Your task to perform on an android device: Go to Yahoo.com Image 0: 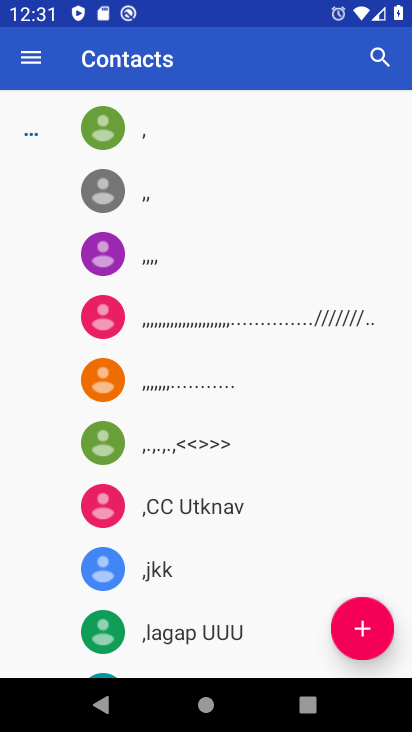
Step 0: press home button
Your task to perform on an android device: Go to Yahoo.com Image 1: 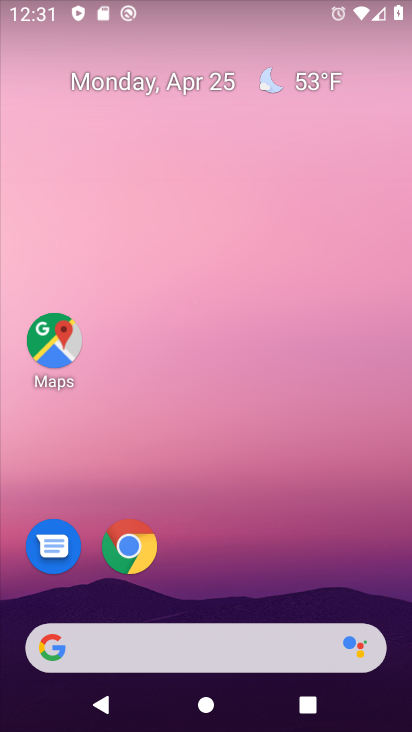
Step 1: click (197, 646)
Your task to perform on an android device: Go to Yahoo.com Image 2: 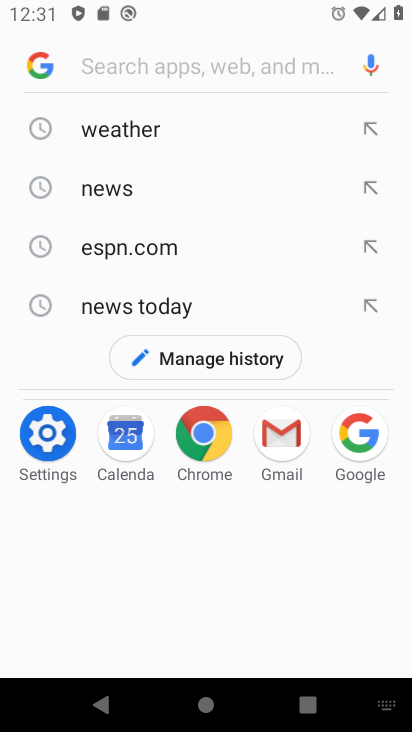
Step 2: type "Yahoo.com"
Your task to perform on an android device: Go to Yahoo.com Image 3: 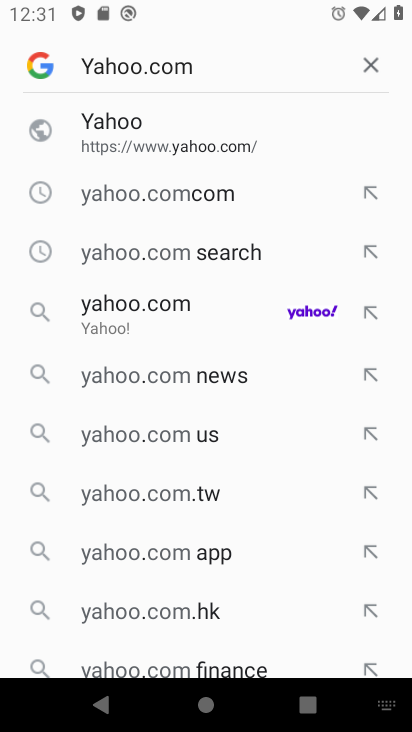
Step 3: click (130, 120)
Your task to perform on an android device: Go to Yahoo.com Image 4: 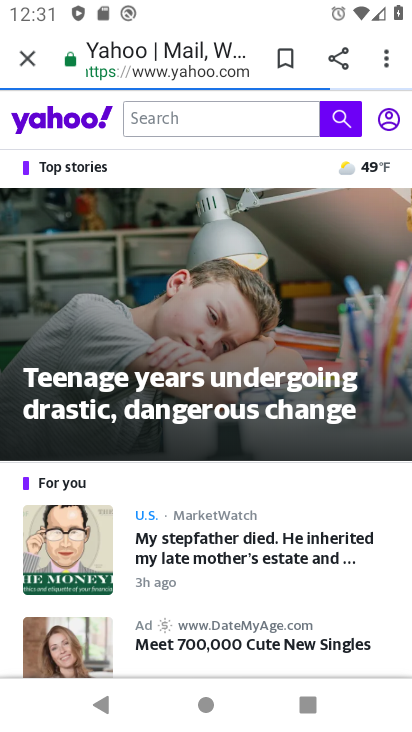
Step 4: task complete